Your task to perform on an android device: Add "dell xps" to the cart on ebay.com, then select checkout. Image 0: 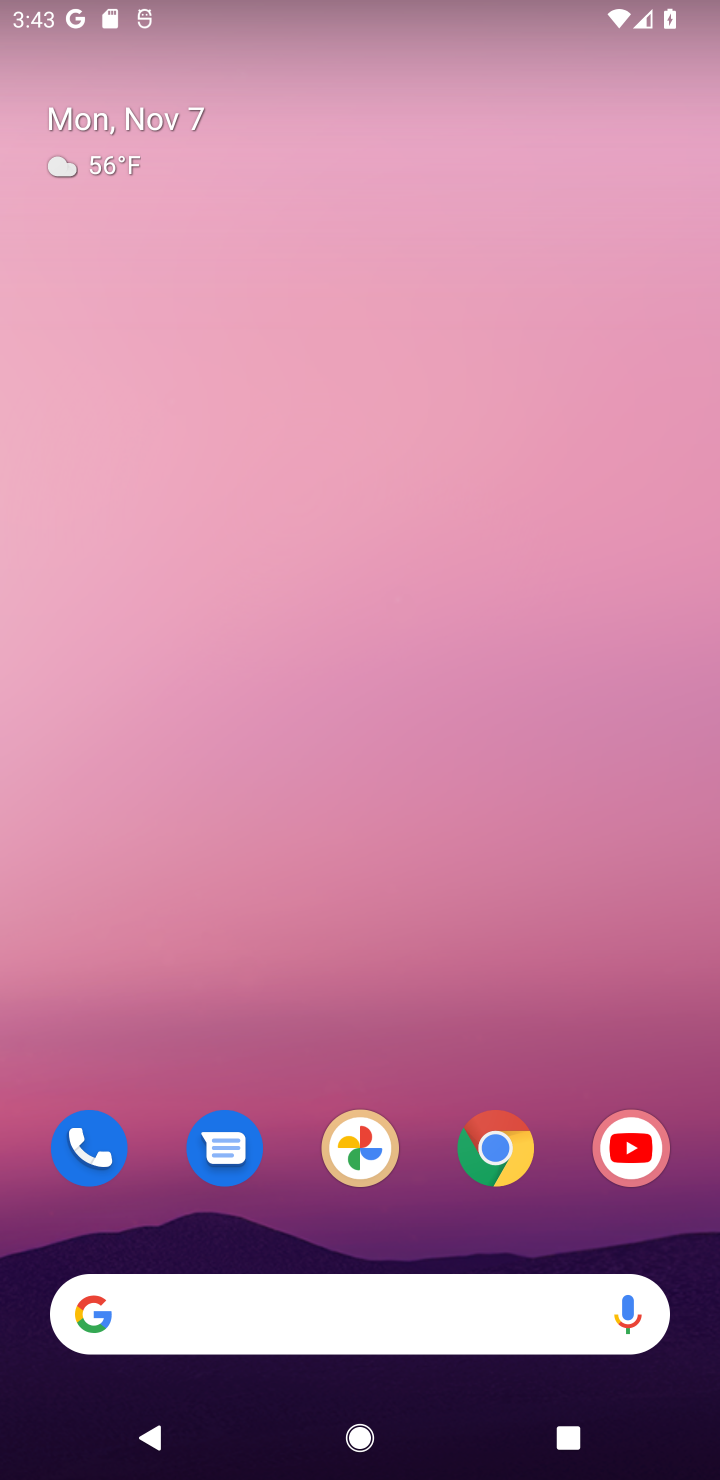
Step 0: drag from (247, 1097) to (303, 261)
Your task to perform on an android device: Add "dell xps" to the cart on ebay.com, then select checkout. Image 1: 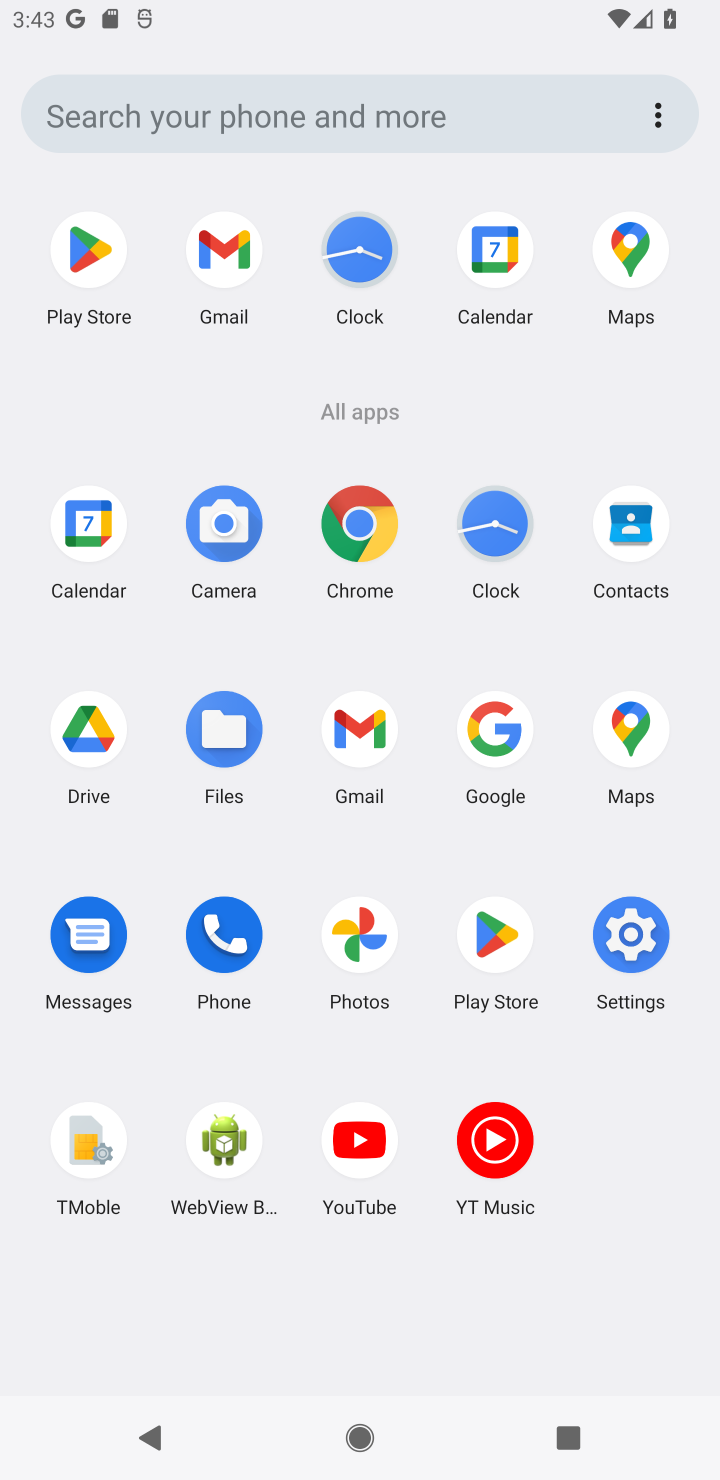
Step 1: click (344, 506)
Your task to perform on an android device: Add "dell xps" to the cart on ebay.com, then select checkout. Image 2: 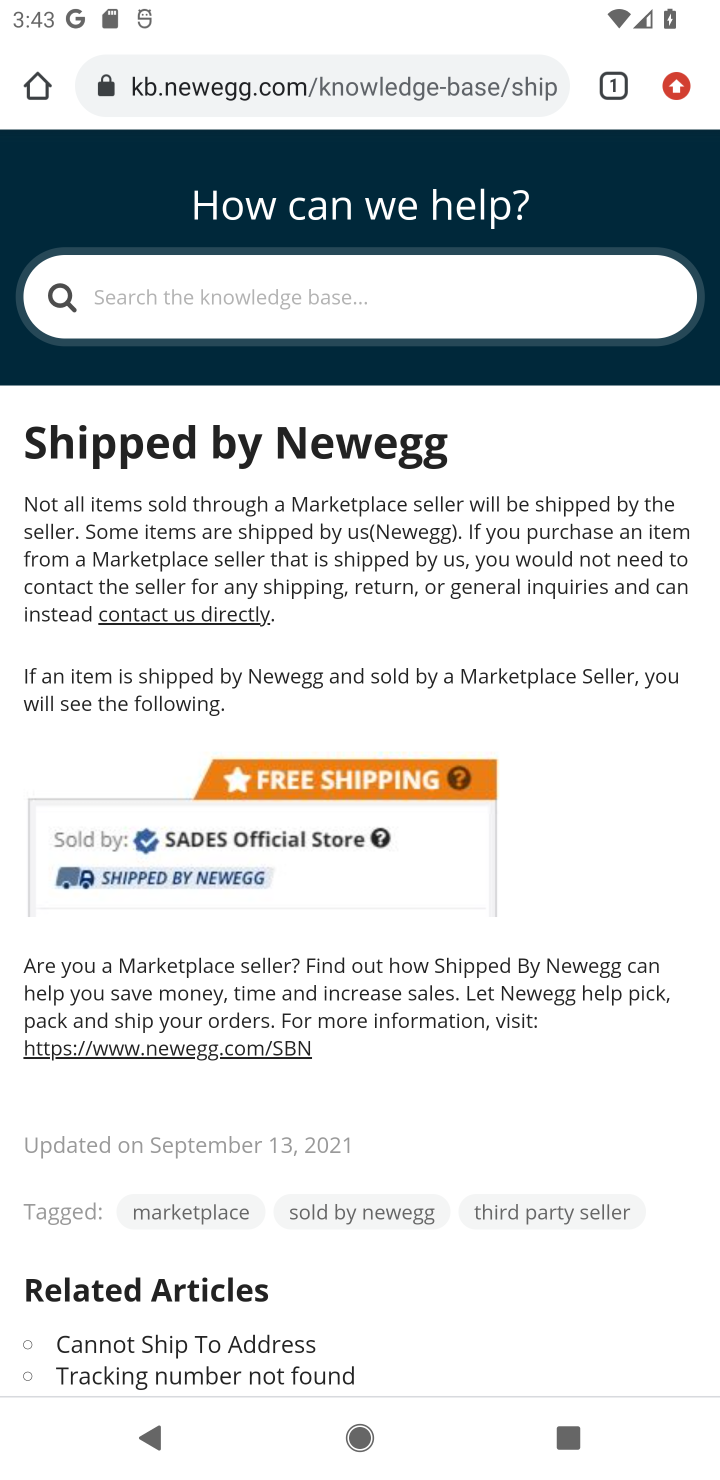
Step 2: click (303, 88)
Your task to perform on an android device: Add "dell xps" to the cart on ebay.com, then select checkout. Image 3: 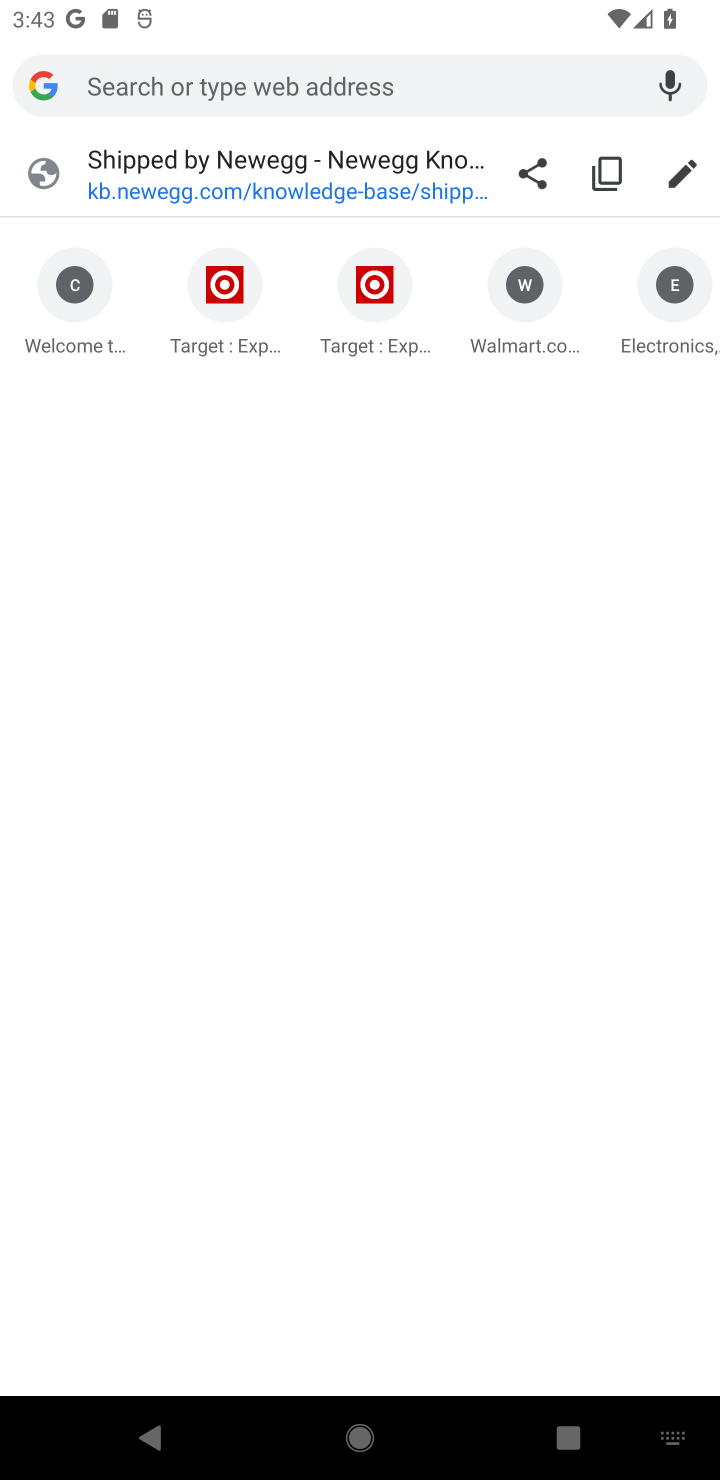
Step 3: type "ebay.com"
Your task to perform on an android device: Add "dell xps" to the cart on ebay.com, then select checkout. Image 4: 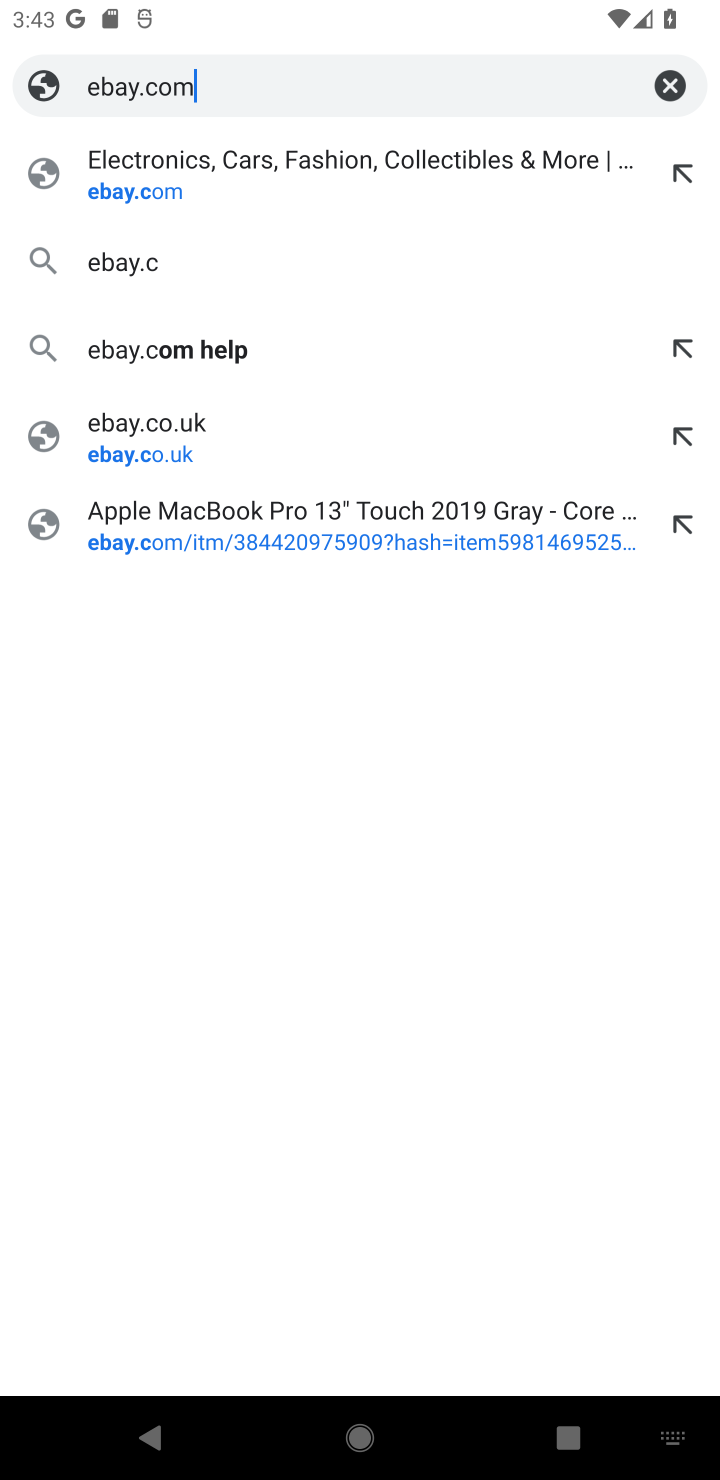
Step 4: press enter
Your task to perform on an android device: Add "dell xps" to the cart on ebay.com, then select checkout. Image 5: 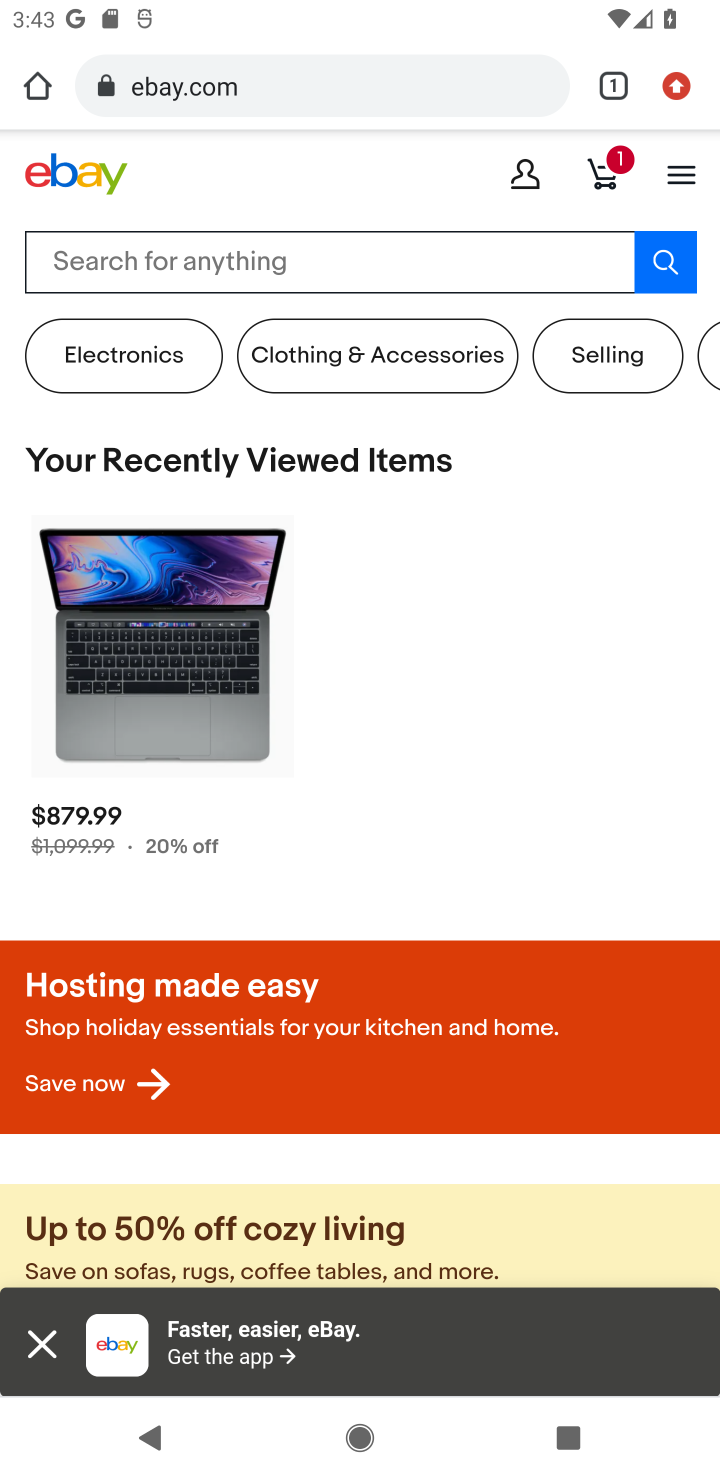
Step 5: click (232, 242)
Your task to perform on an android device: Add "dell xps" to the cart on ebay.com, then select checkout. Image 6: 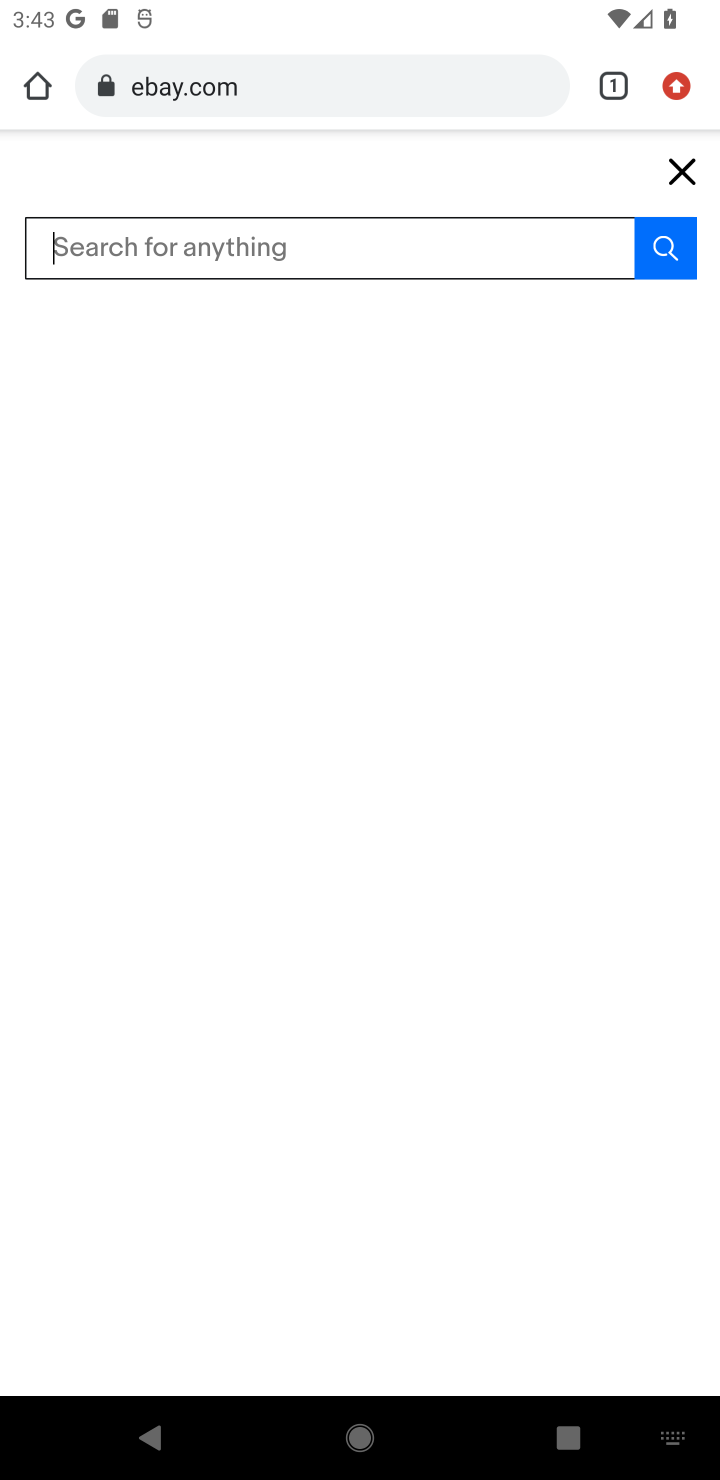
Step 6: type "dell xps"
Your task to perform on an android device: Add "dell xps" to the cart on ebay.com, then select checkout. Image 7: 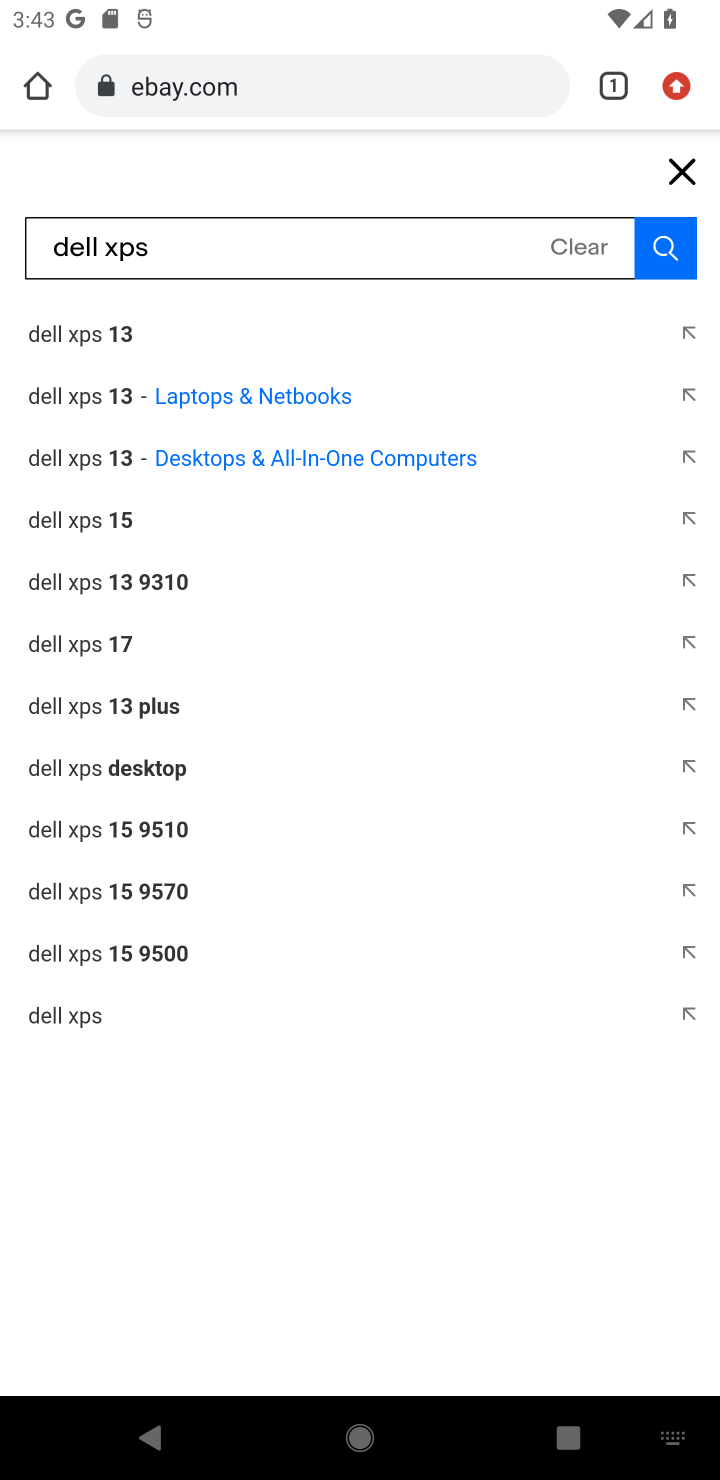
Step 7: press enter
Your task to perform on an android device: Add "dell xps" to the cart on ebay.com, then select checkout. Image 8: 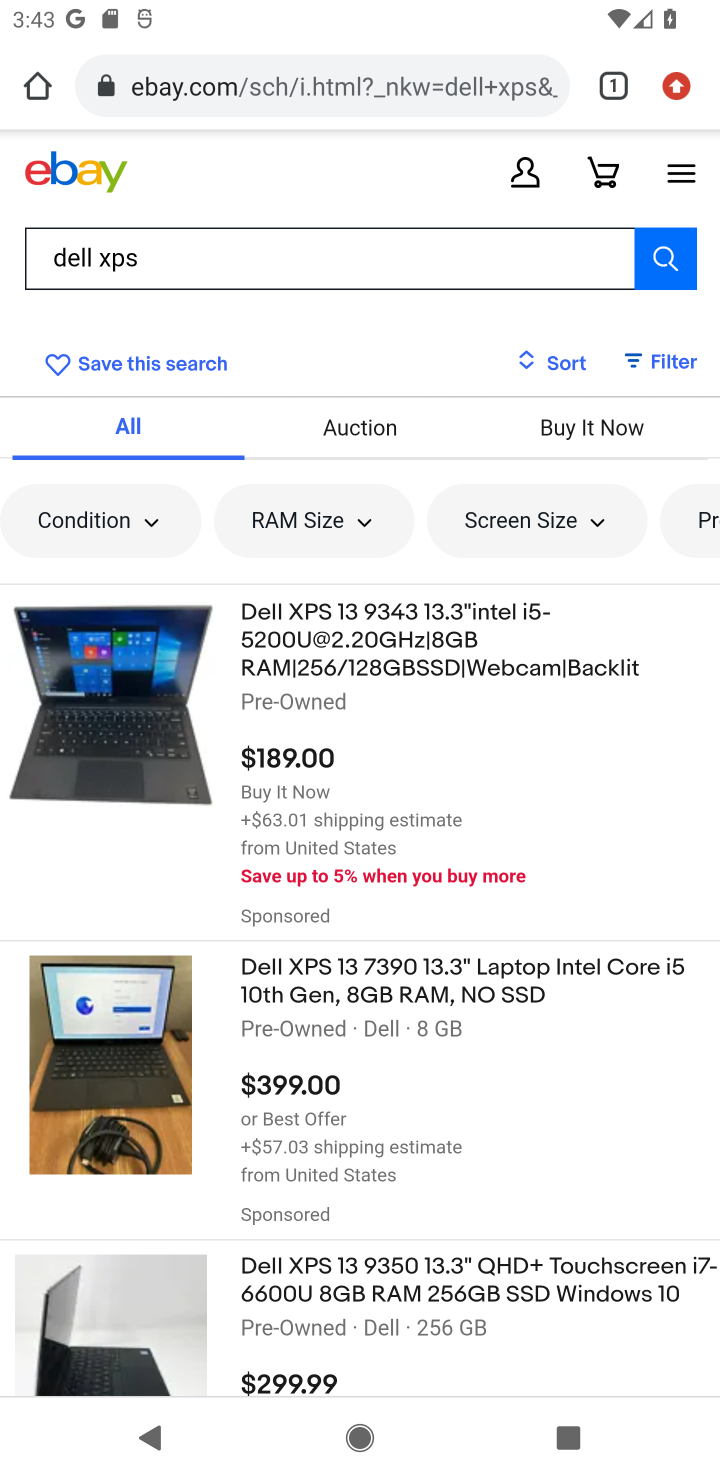
Step 8: click (122, 728)
Your task to perform on an android device: Add "dell xps" to the cart on ebay.com, then select checkout. Image 9: 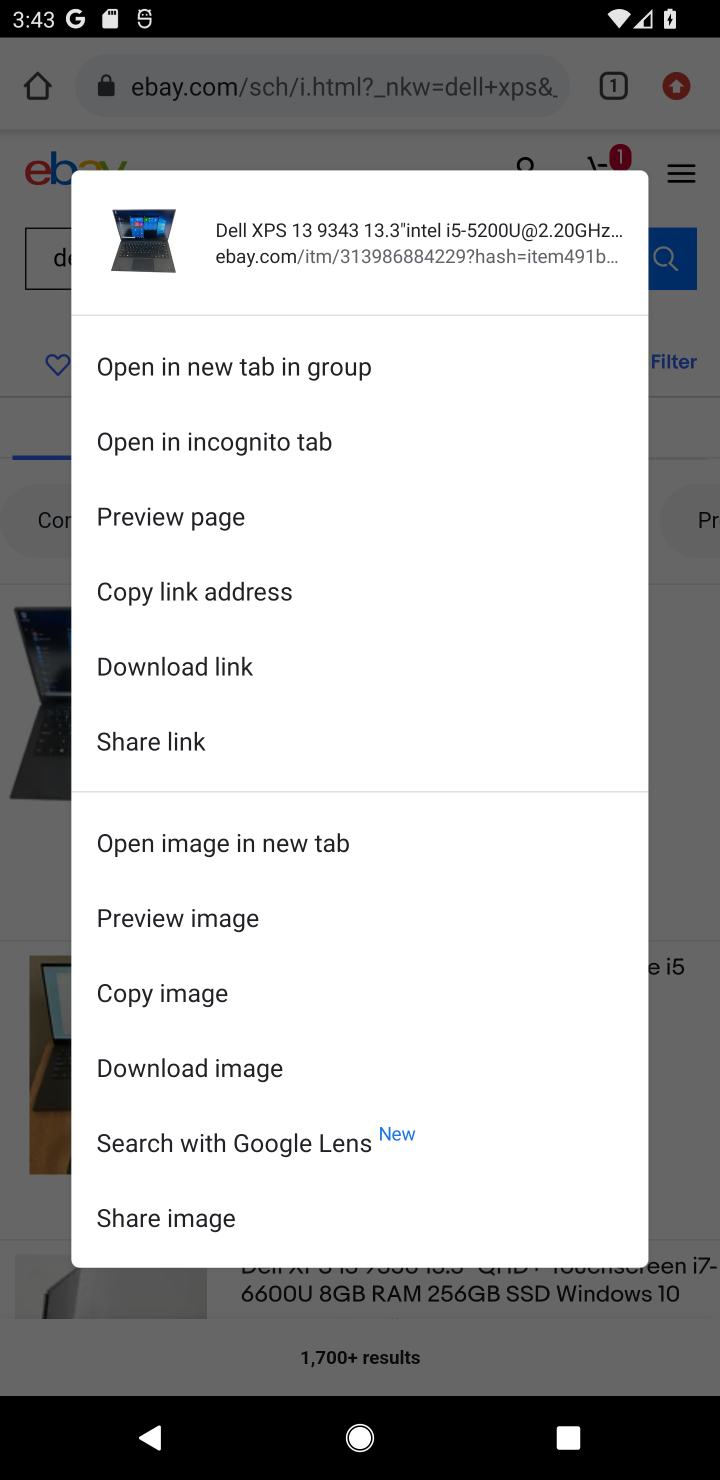
Step 9: click (71, 652)
Your task to perform on an android device: Add "dell xps" to the cart on ebay.com, then select checkout. Image 10: 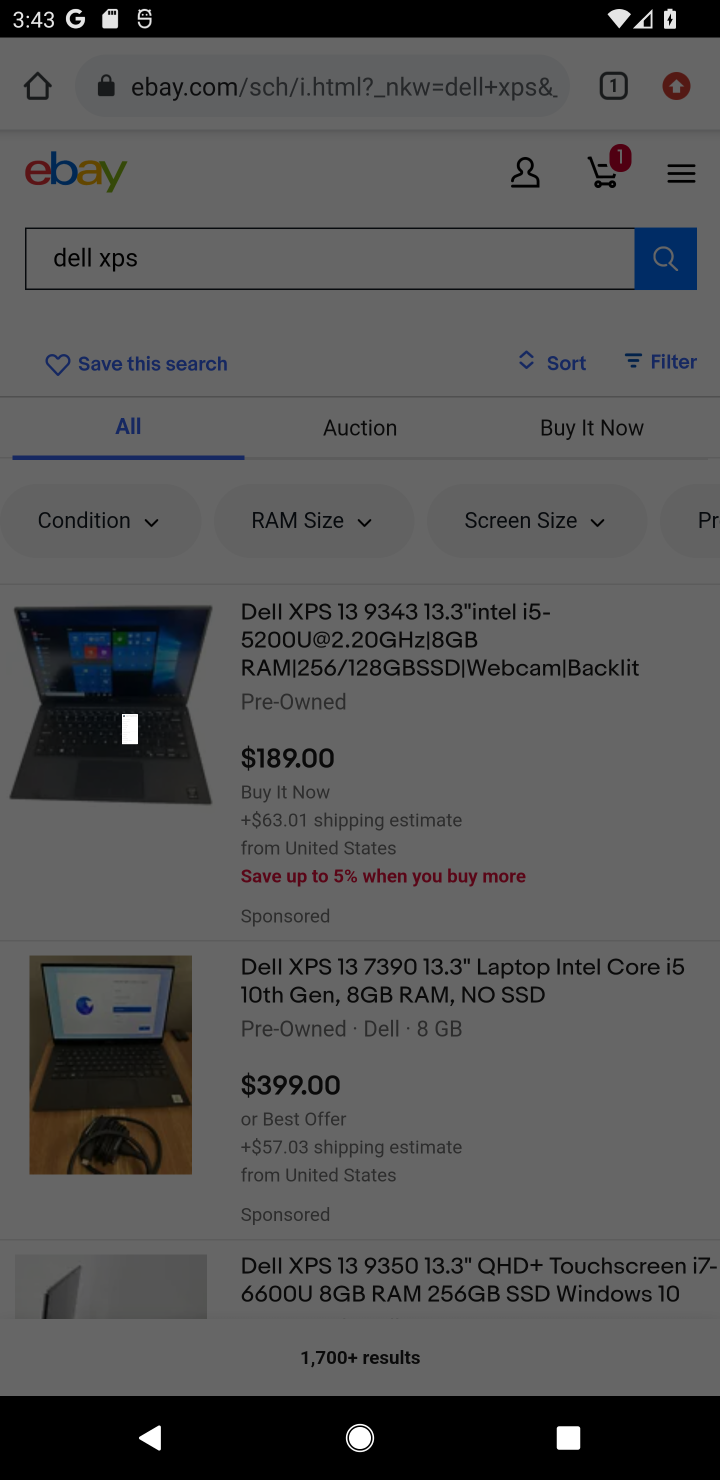
Step 10: click (17, 666)
Your task to perform on an android device: Add "dell xps" to the cart on ebay.com, then select checkout. Image 11: 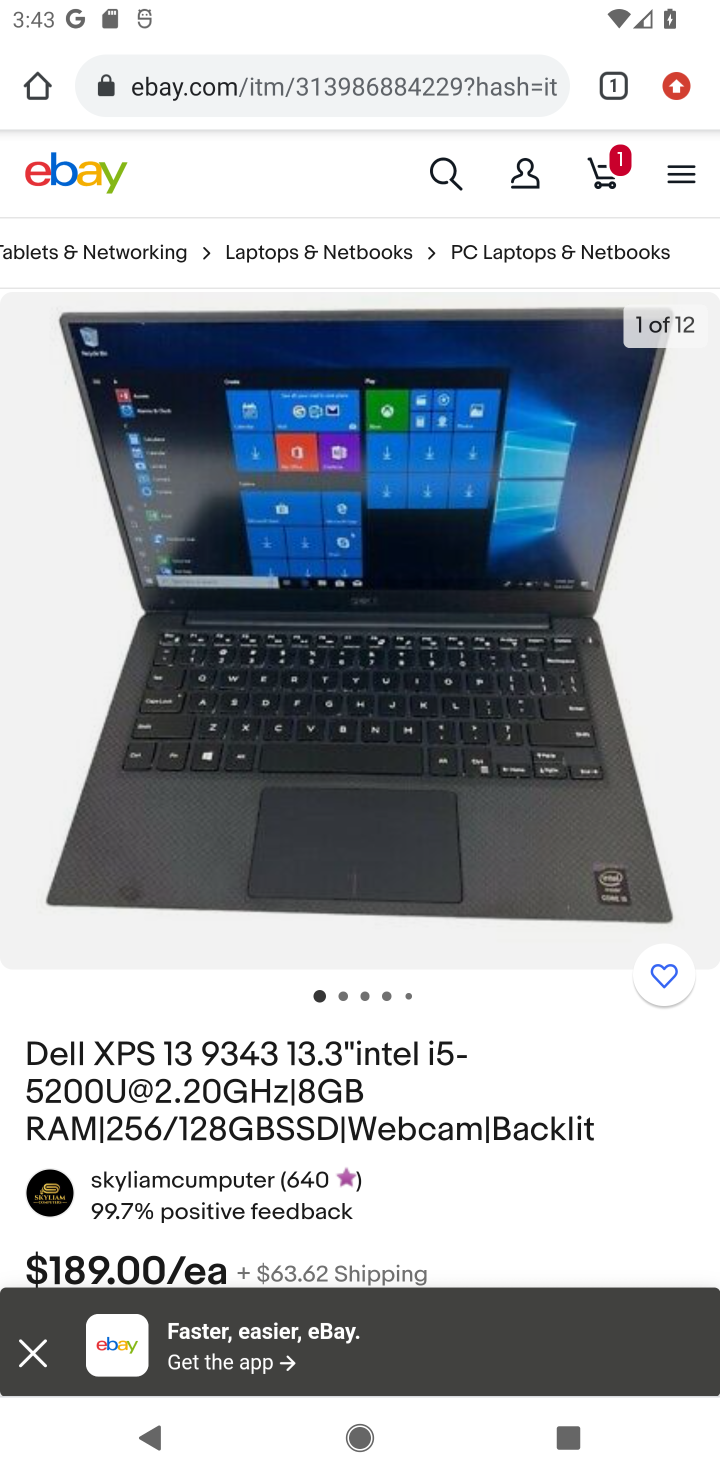
Step 11: drag from (485, 1058) to (568, 669)
Your task to perform on an android device: Add "dell xps" to the cart on ebay.com, then select checkout. Image 12: 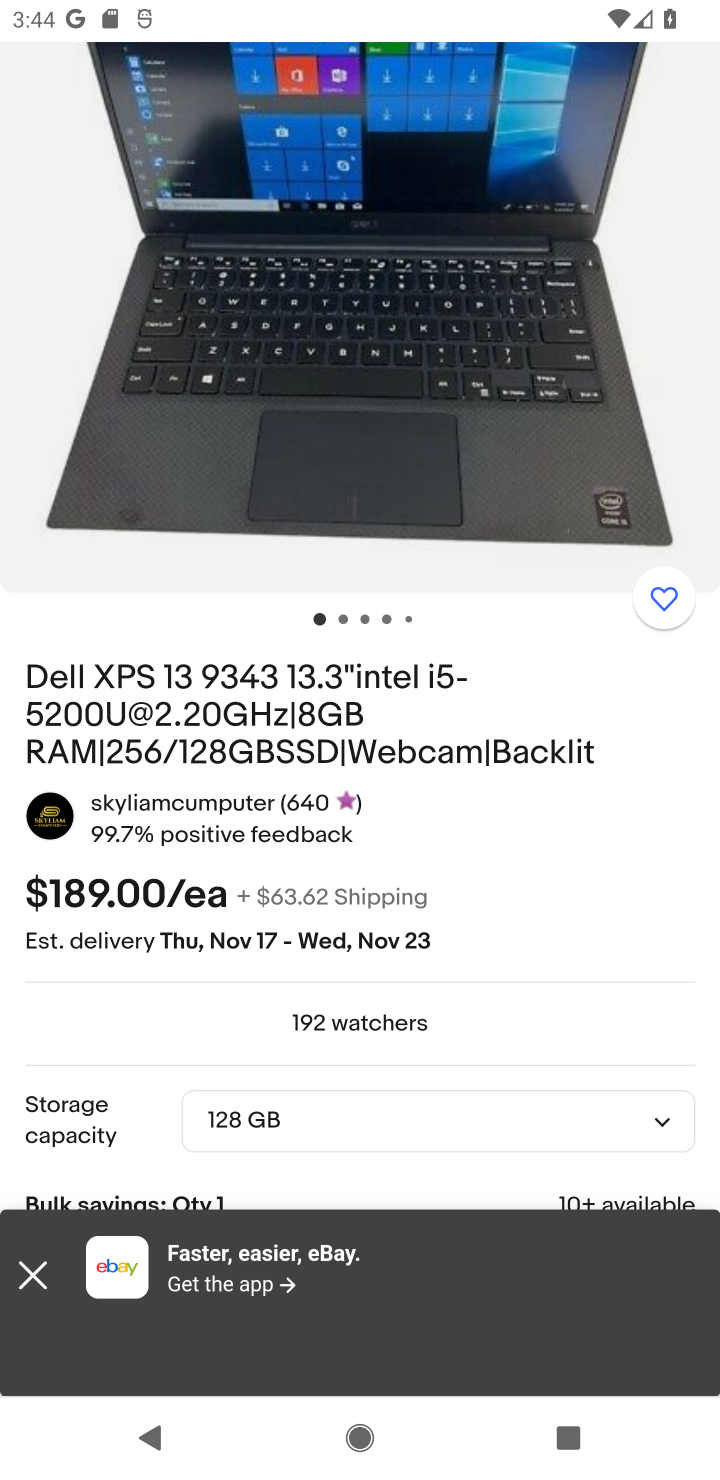
Step 12: drag from (353, 890) to (364, 765)
Your task to perform on an android device: Add "dell xps" to the cart on ebay.com, then select checkout. Image 13: 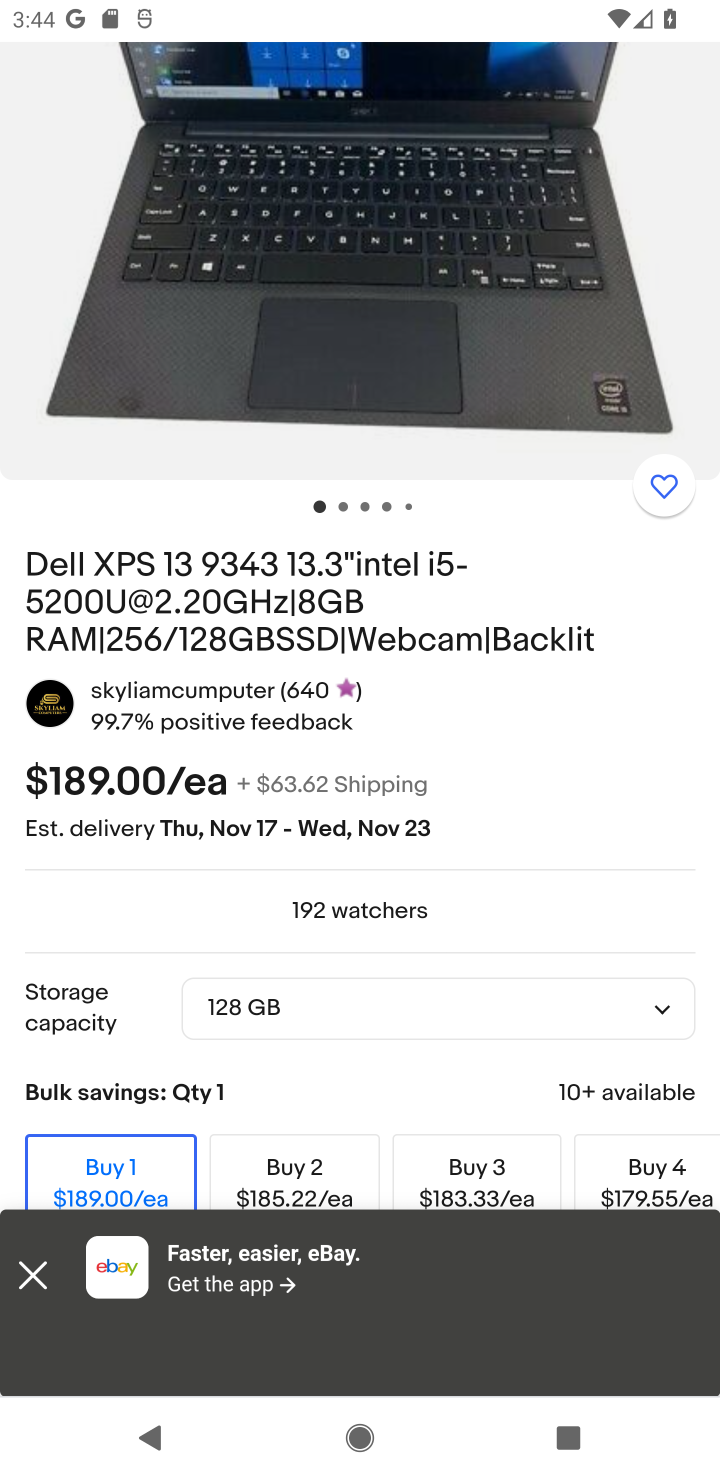
Step 13: drag from (206, 919) to (223, 709)
Your task to perform on an android device: Add "dell xps" to the cart on ebay.com, then select checkout. Image 14: 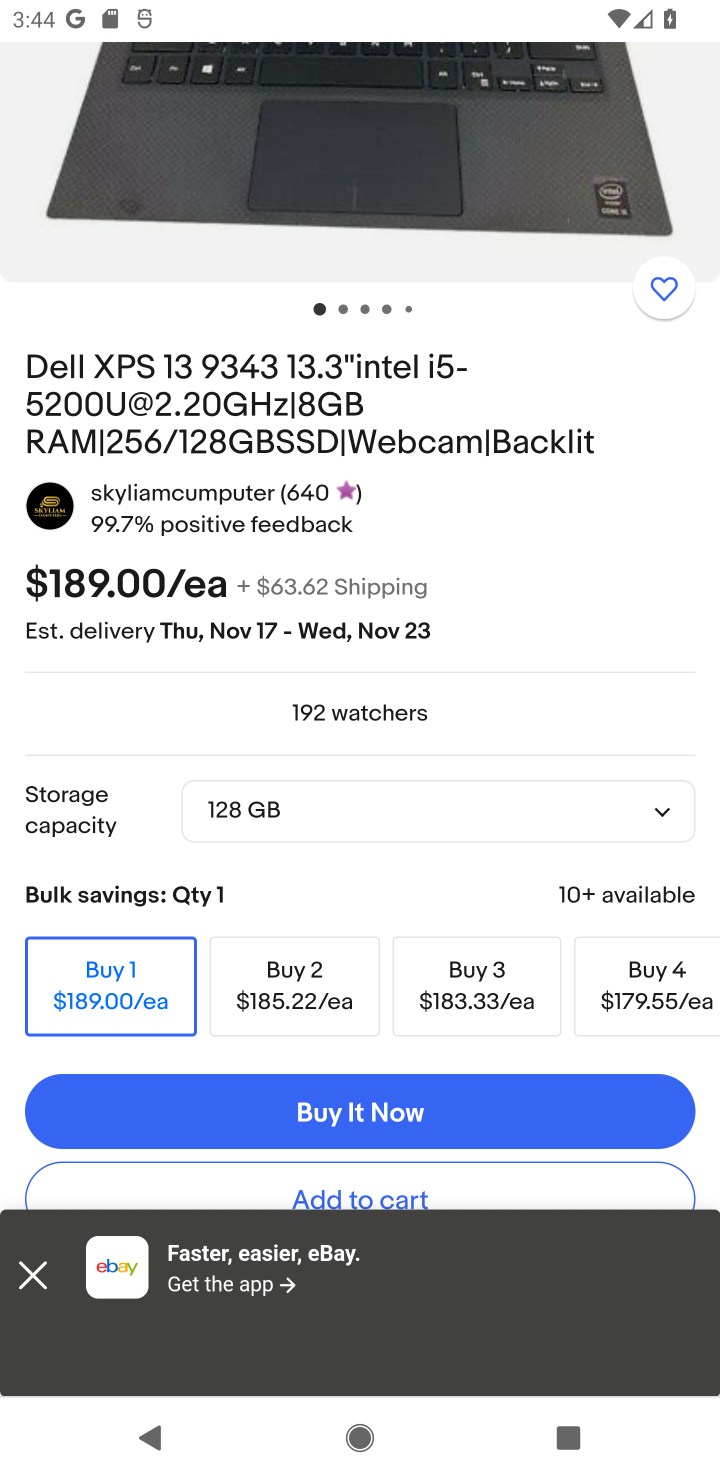
Step 14: drag from (414, 933) to (458, 748)
Your task to perform on an android device: Add "dell xps" to the cart on ebay.com, then select checkout. Image 15: 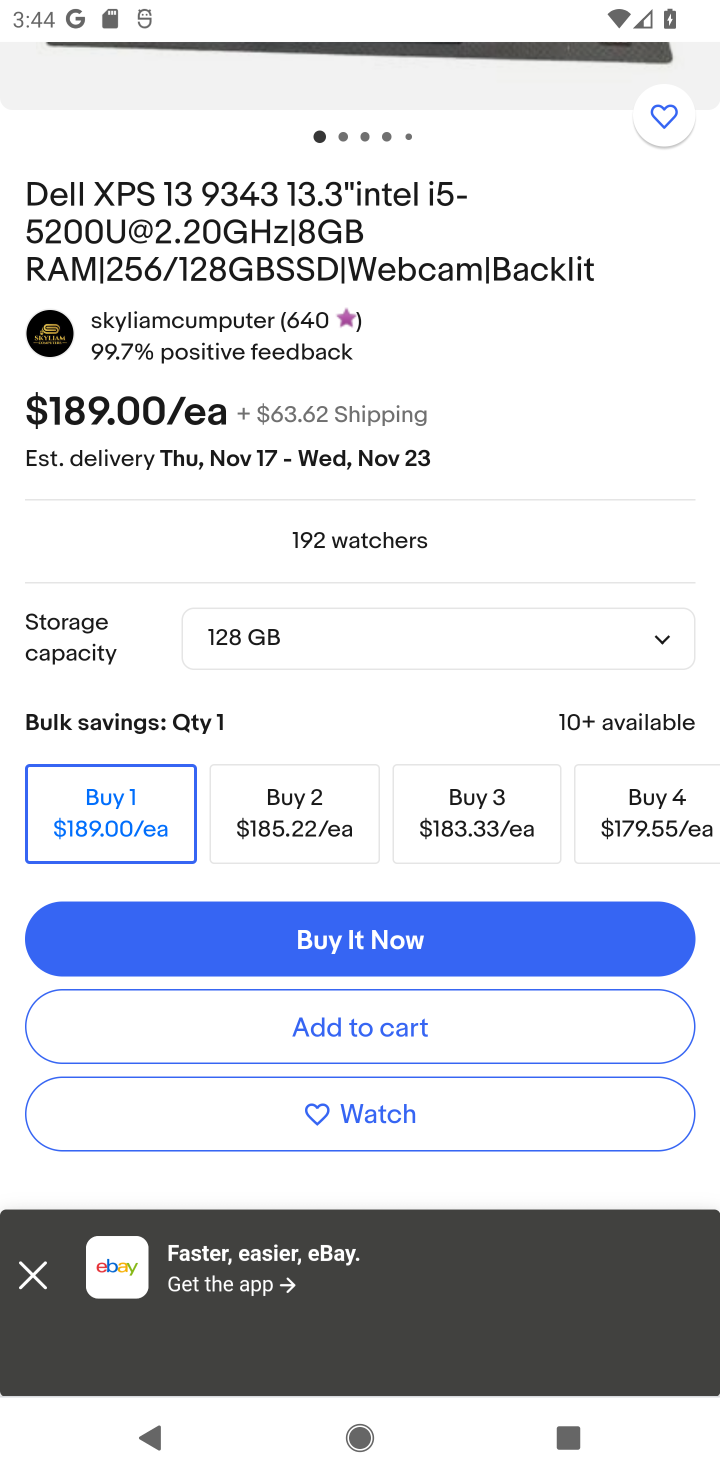
Step 15: click (382, 1031)
Your task to perform on an android device: Add "dell xps" to the cart on ebay.com, then select checkout. Image 16: 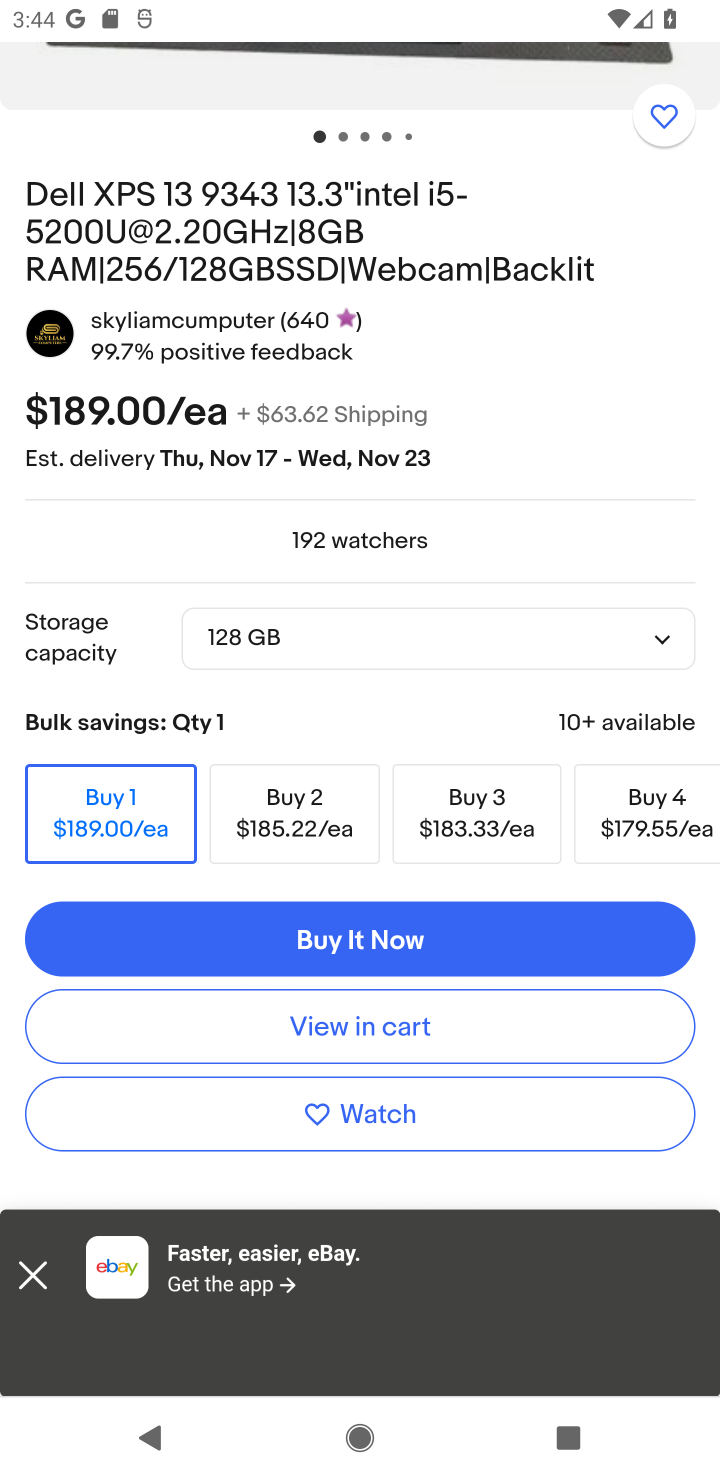
Step 16: click (392, 1037)
Your task to perform on an android device: Add "dell xps" to the cart on ebay.com, then select checkout. Image 17: 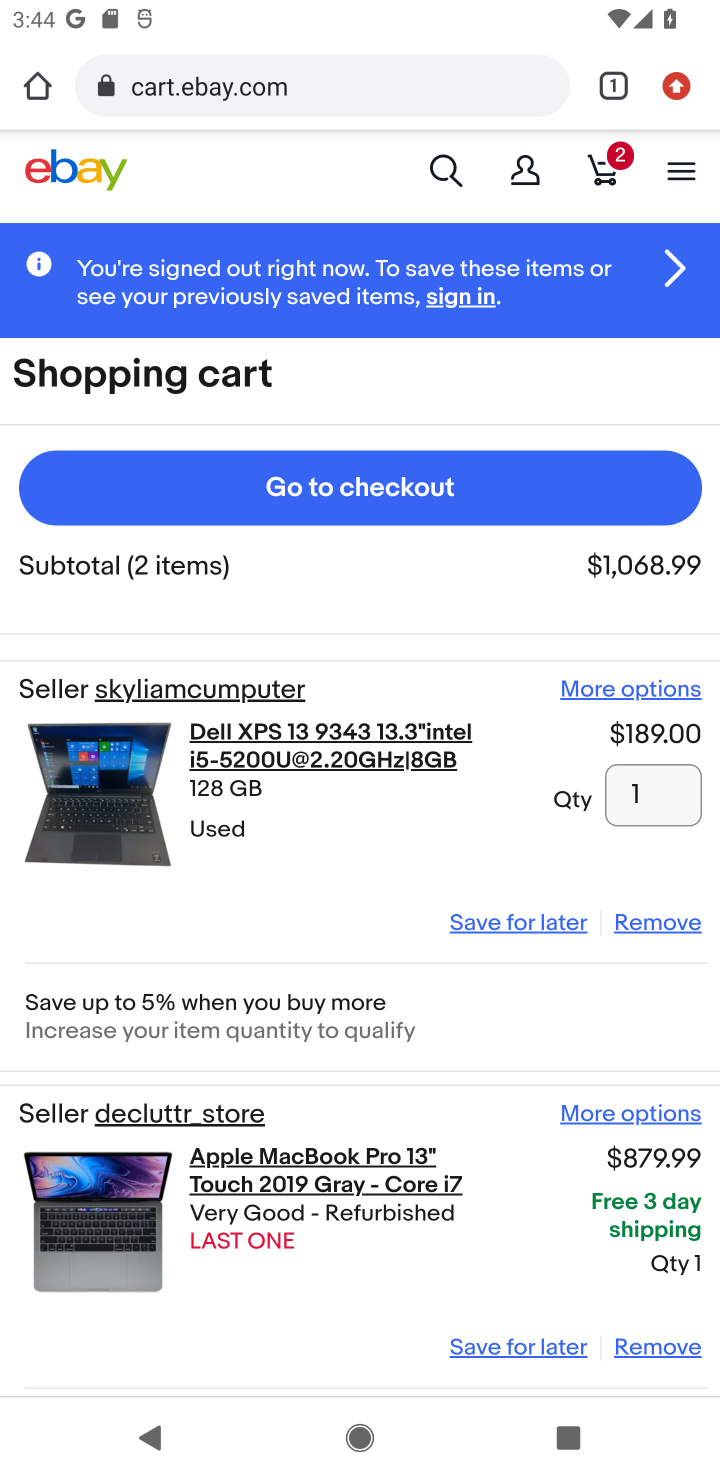
Step 17: click (343, 507)
Your task to perform on an android device: Add "dell xps" to the cart on ebay.com, then select checkout. Image 18: 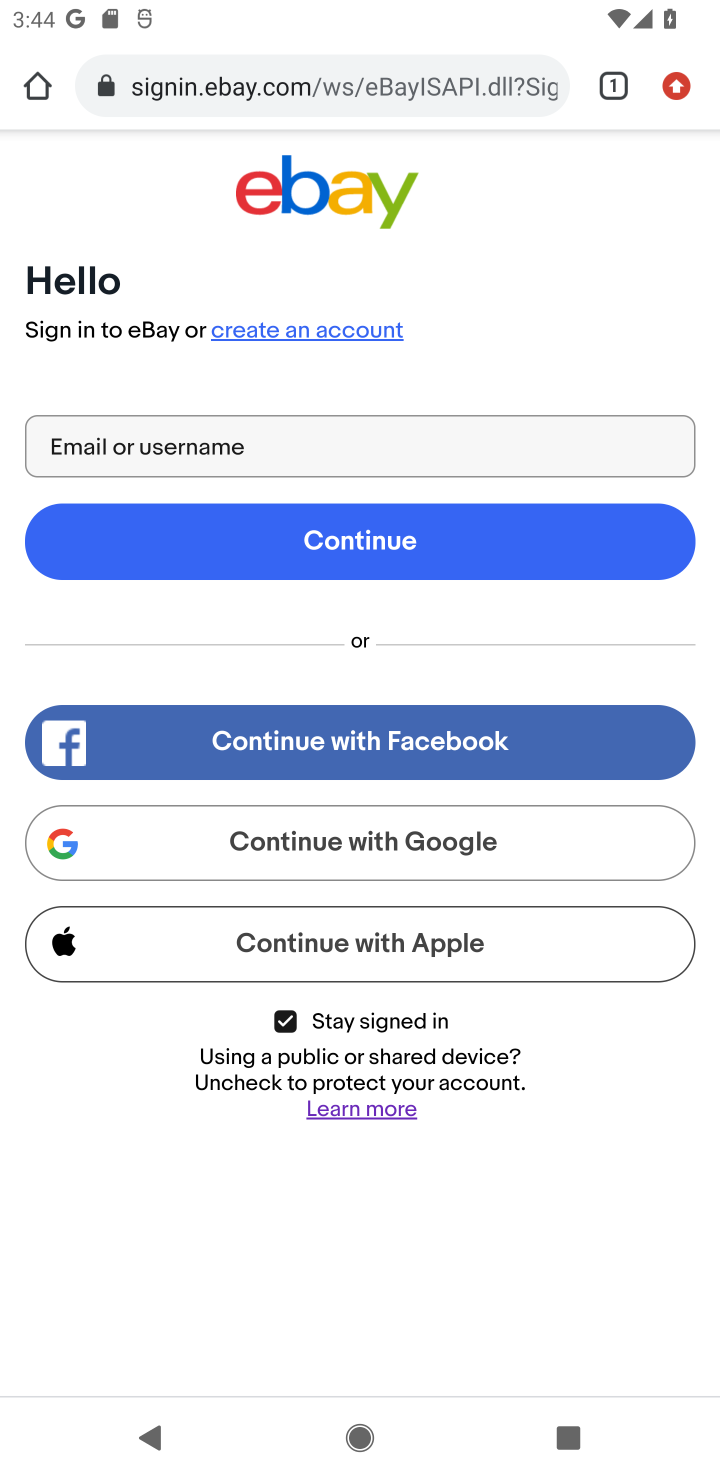
Step 18: task complete